Your task to perform on an android device: What's on my calendar tomorrow? Image 0: 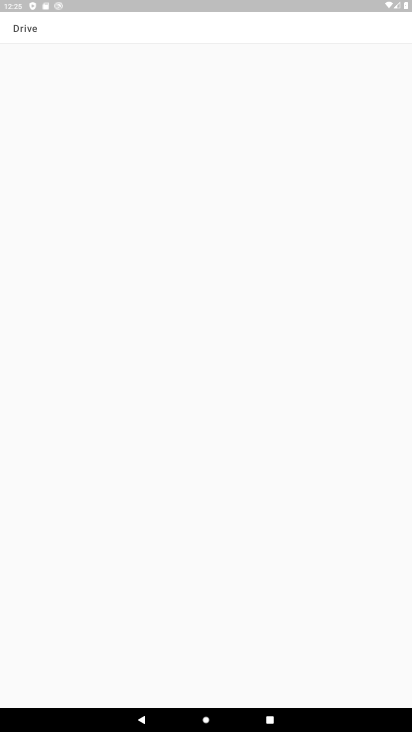
Step 0: press home button
Your task to perform on an android device: What's on my calendar tomorrow? Image 1: 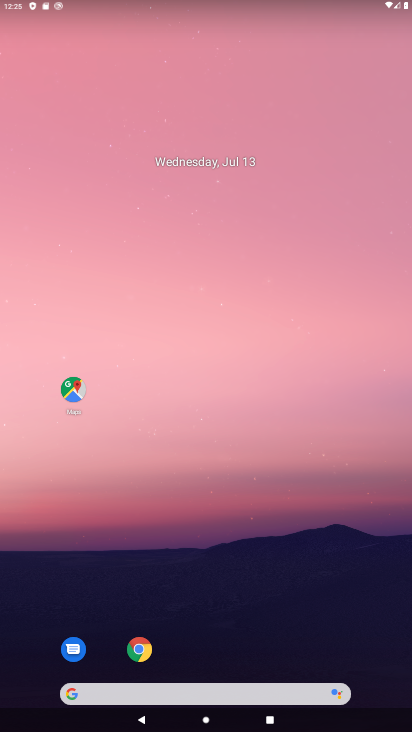
Step 1: drag from (205, 649) to (265, 168)
Your task to perform on an android device: What's on my calendar tomorrow? Image 2: 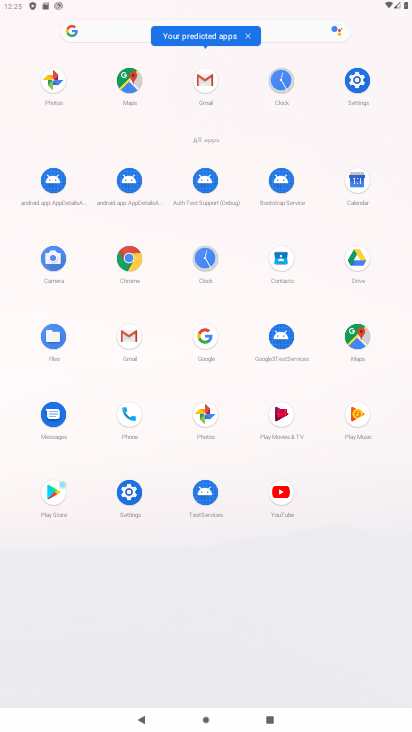
Step 2: click (350, 191)
Your task to perform on an android device: What's on my calendar tomorrow? Image 3: 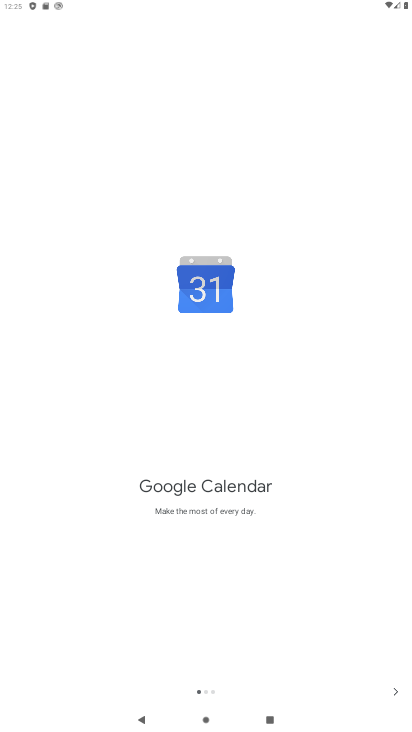
Step 3: click (396, 690)
Your task to perform on an android device: What's on my calendar tomorrow? Image 4: 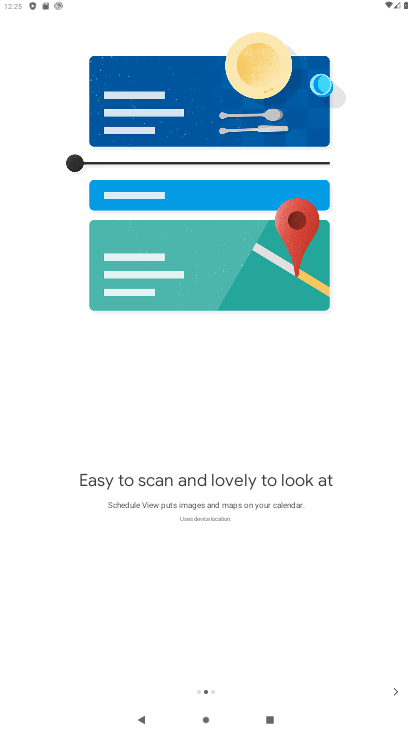
Step 4: click (396, 690)
Your task to perform on an android device: What's on my calendar tomorrow? Image 5: 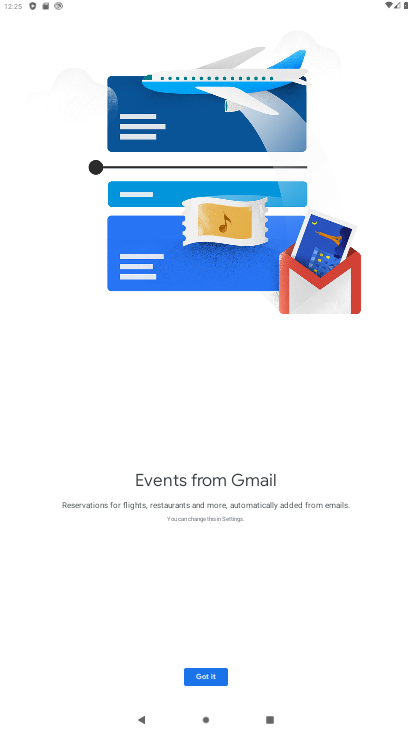
Step 5: click (396, 690)
Your task to perform on an android device: What's on my calendar tomorrow? Image 6: 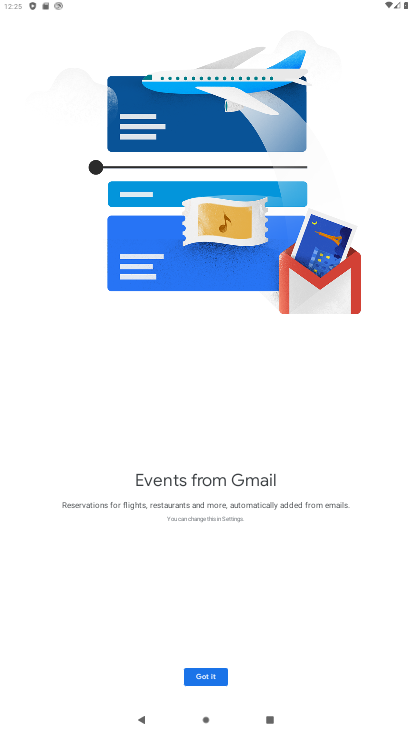
Step 6: click (216, 683)
Your task to perform on an android device: What's on my calendar tomorrow? Image 7: 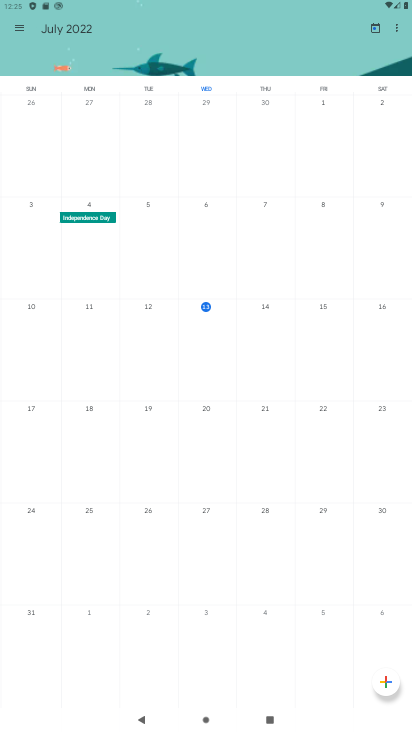
Step 7: click (256, 332)
Your task to perform on an android device: What's on my calendar tomorrow? Image 8: 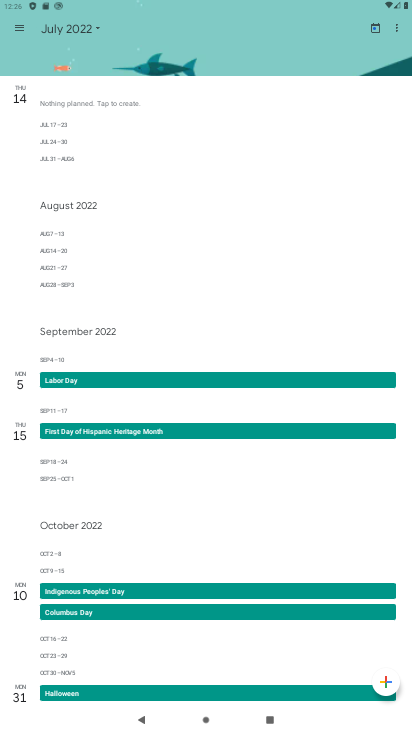
Step 8: task complete